Your task to perform on an android device: Open internet settings Image 0: 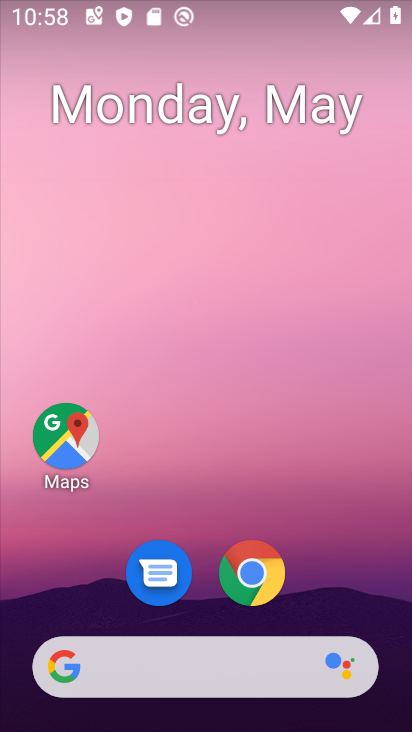
Step 0: drag from (357, 583) to (279, 20)
Your task to perform on an android device: Open internet settings Image 1: 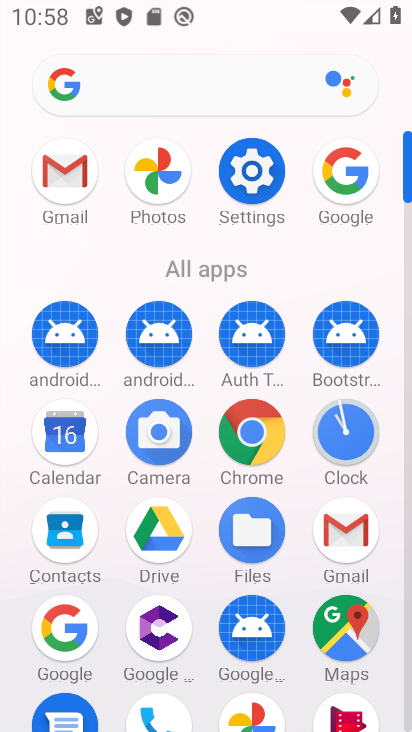
Step 1: click (246, 173)
Your task to perform on an android device: Open internet settings Image 2: 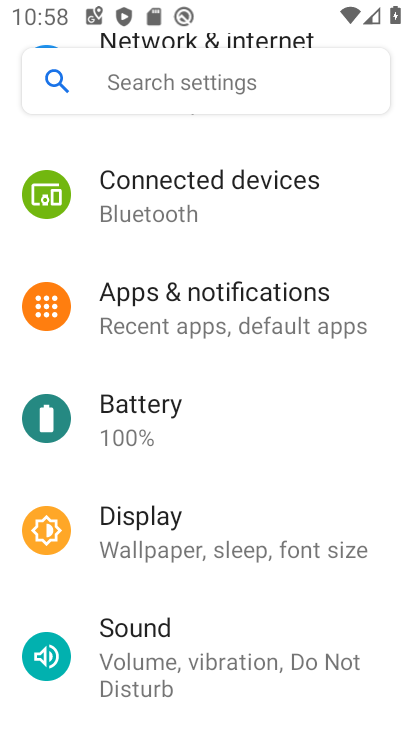
Step 2: drag from (239, 227) to (244, 622)
Your task to perform on an android device: Open internet settings Image 3: 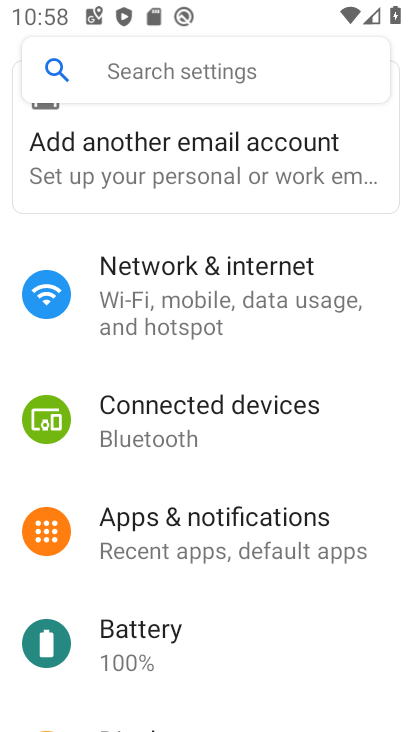
Step 3: click (232, 299)
Your task to perform on an android device: Open internet settings Image 4: 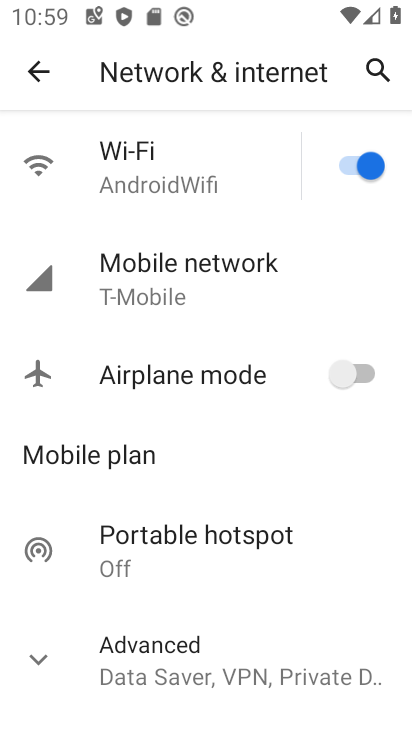
Step 4: task complete